Your task to perform on an android device: Turn off the flashlight Image 0: 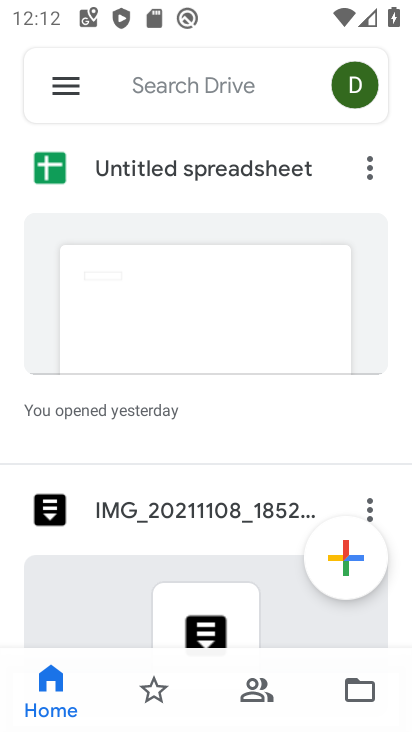
Step 0: press home button
Your task to perform on an android device: Turn off the flashlight Image 1: 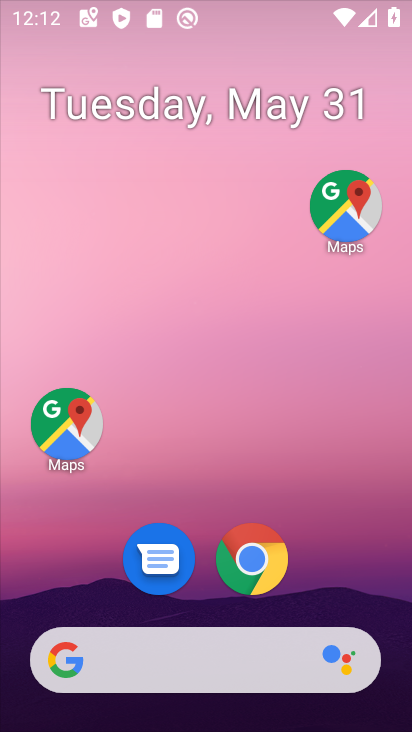
Step 1: drag from (308, 557) to (281, 85)
Your task to perform on an android device: Turn off the flashlight Image 2: 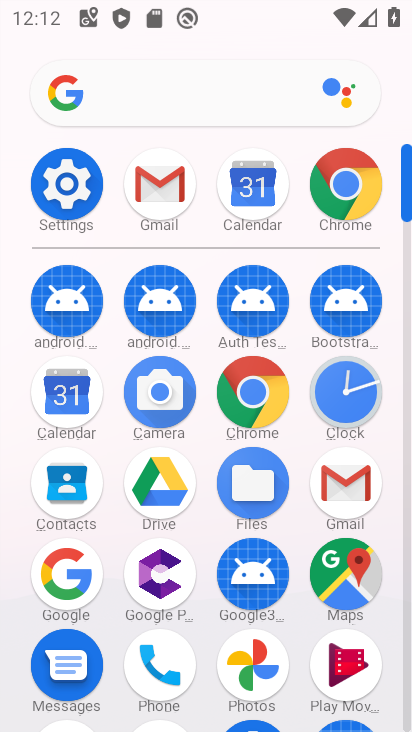
Step 2: click (70, 178)
Your task to perform on an android device: Turn off the flashlight Image 3: 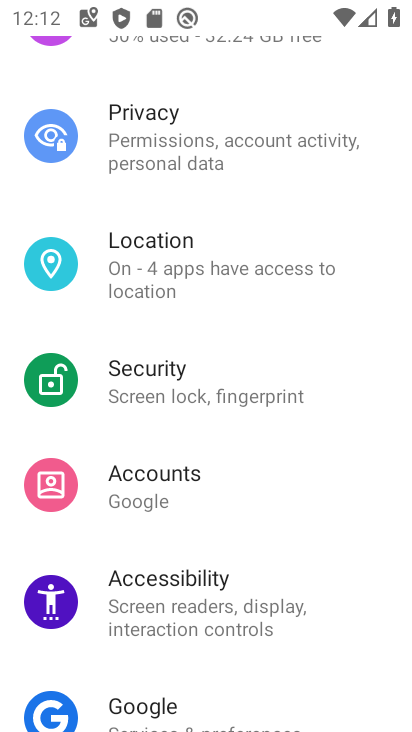
Step 3: drag from (138, 571) to (126, 658)
Your task to perform on an android device: Turn off the flashlight Image 4: 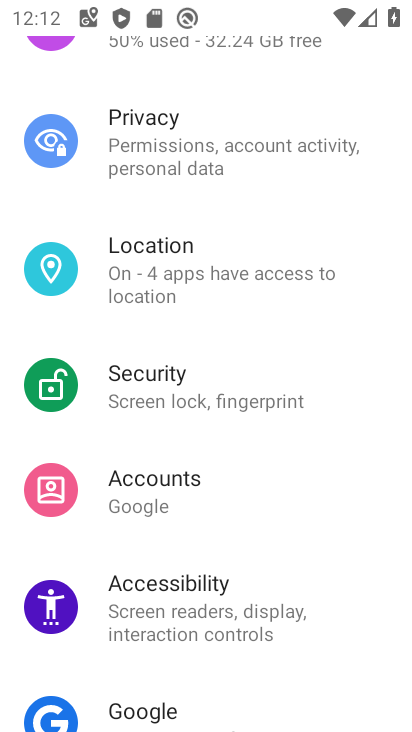
Step 4: drag from (273, 193) to (205, 679)
Your task to perform on an android device: Turn off the flashlight Image 5: 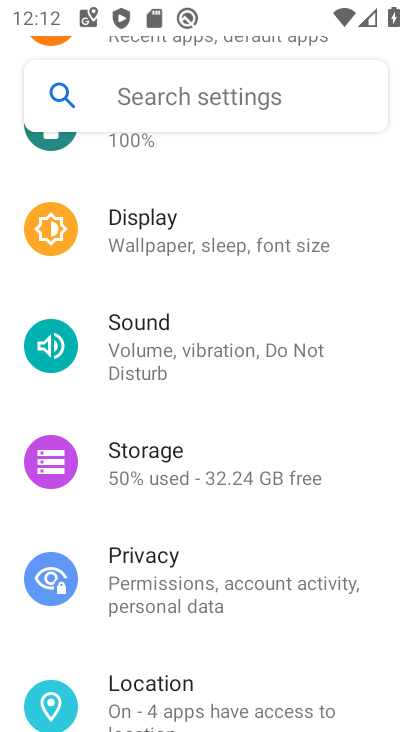
Step 5: click (155, 236)
Your task to perform on an android device: Turn off the flashlight Image 6: 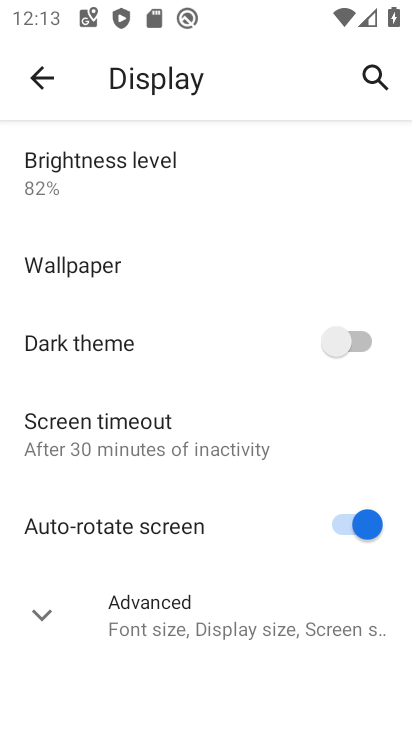
Step 6: task complete